Your task to perform on an android device: turn on location history Image 0: 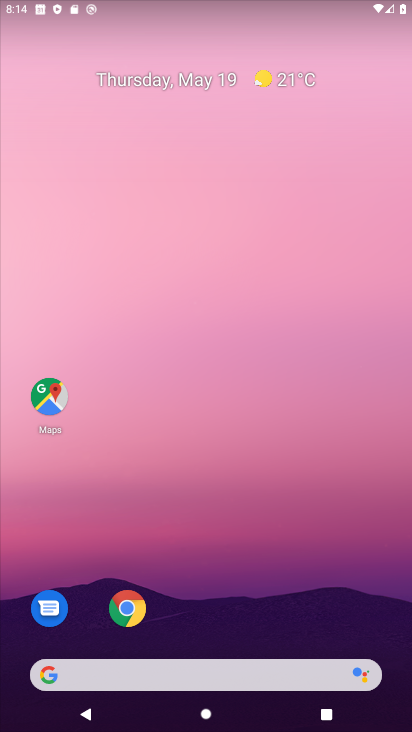
Step 0: drag from (230, 544) to (202, 123)
Your task to perform on an android device: turn on location history Image 1: 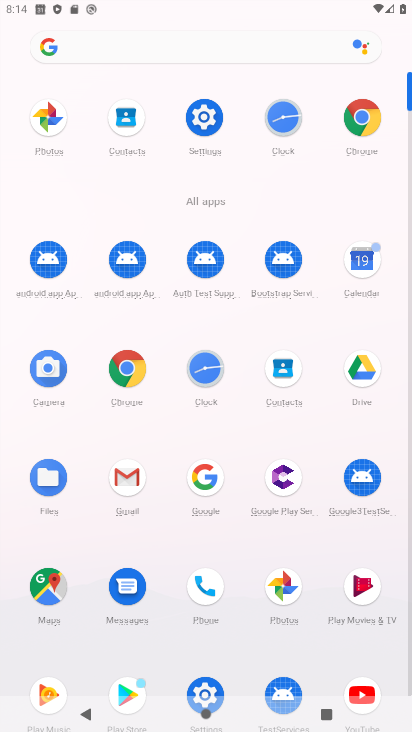
Step 1: click (40, 588)
Your task to perform on an android device: turn on location history Image 2: 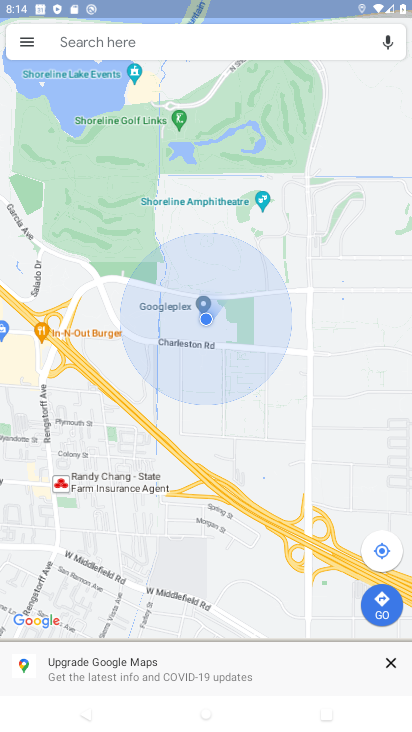
Step 2: click (25, 38)
Your task to perform on an android device: turn on location history Image 3: 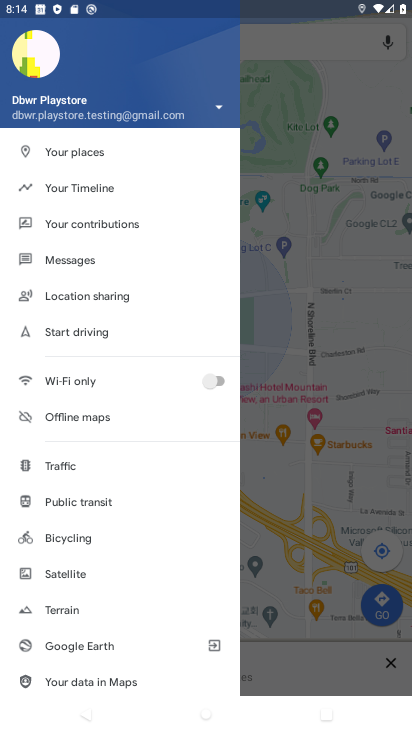
Step 3: drag from (120, 600) to (120, 337)
Your task to perform on an android device: turn on location history Image 4: 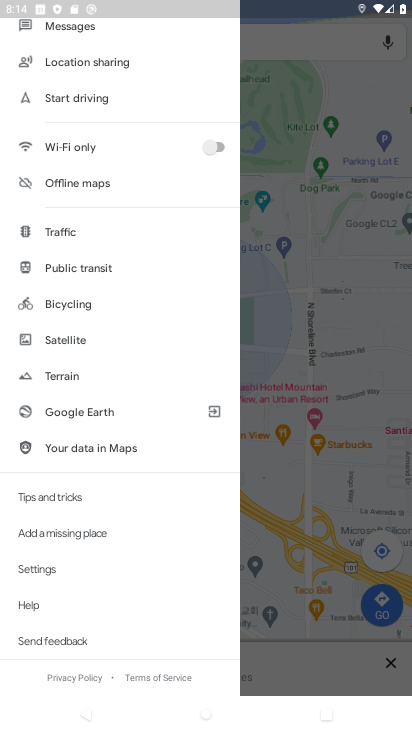
Step 4: drag from (114, 156) to (189, 493)
Your task to perform on an android device: turn on location history Image 5: 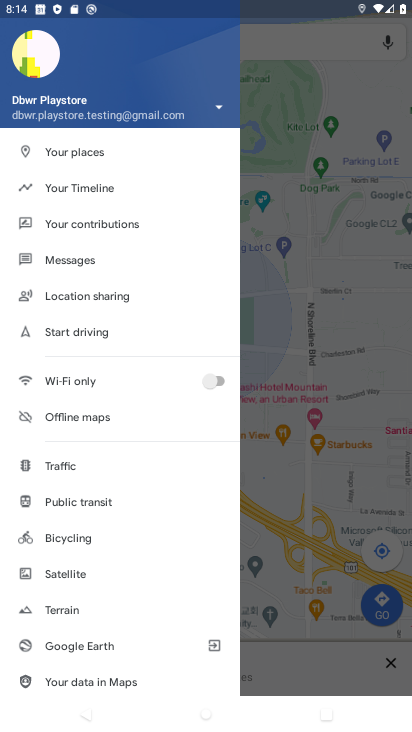
Step 5: click (93, 186)
Your task to perform on an android device: turn on location history Image 6: 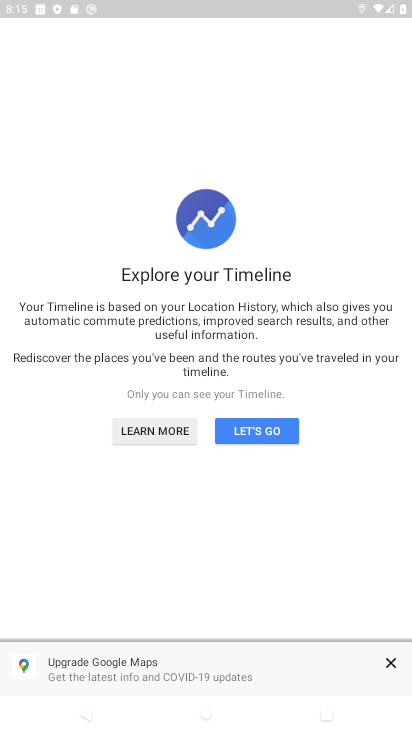
Step 6: click (242, 423)
Your task to perform on an android device: turn on location history Image 7: 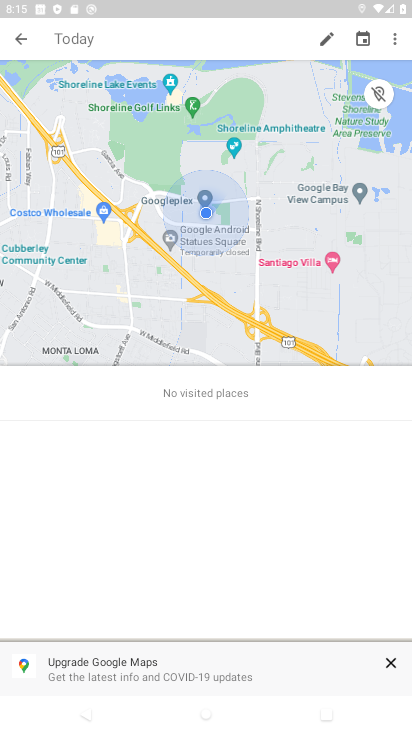
Step 7: click (397, 30)
Your task to perform on an android device: turn on location history Image 8: 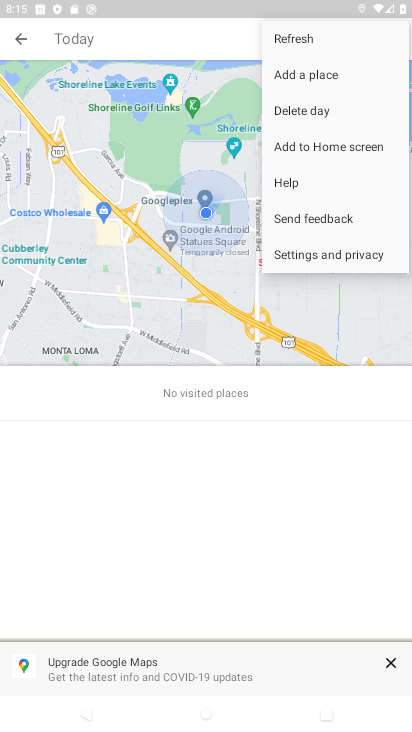
Step 8: click (332, 250)
Your task to perform on an android device: turn on location history Image 9: 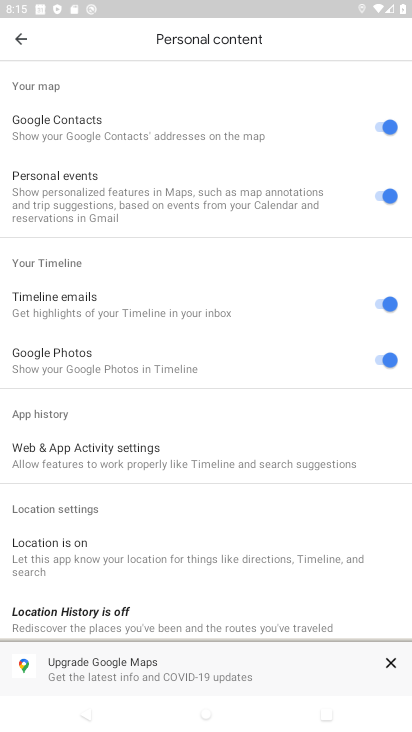
Step 9: drag from (239, 420) to (182, 159)
Your task to perform on an android device: turn on location history Image 10: 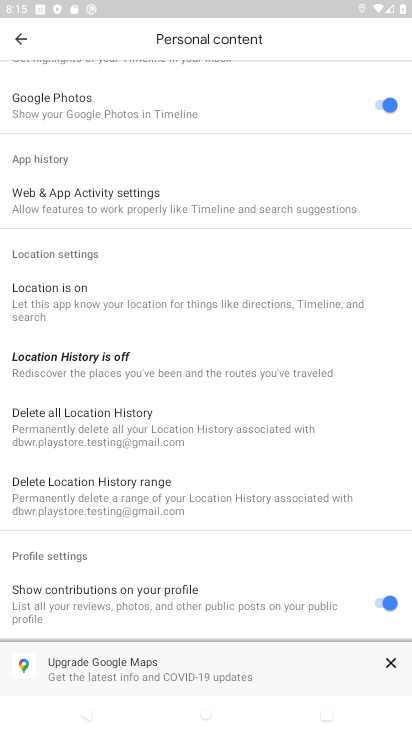
Step 10: click (81, 352)
Your task to perform on an android device: turn on location history Image 11: 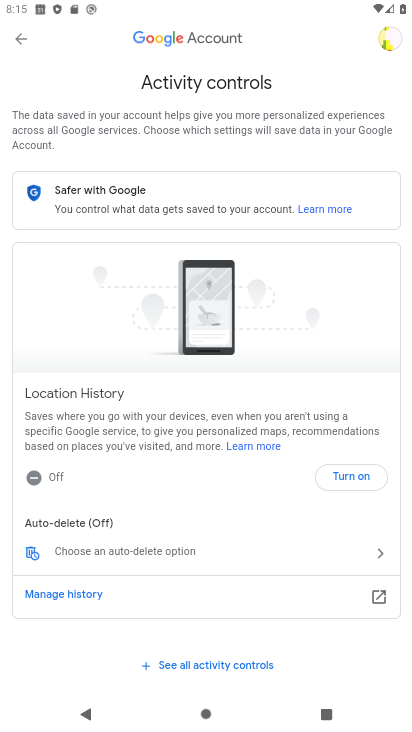
Step 11: click (360, 475)
Your task to perform on an android device: turn on location history Image 12: 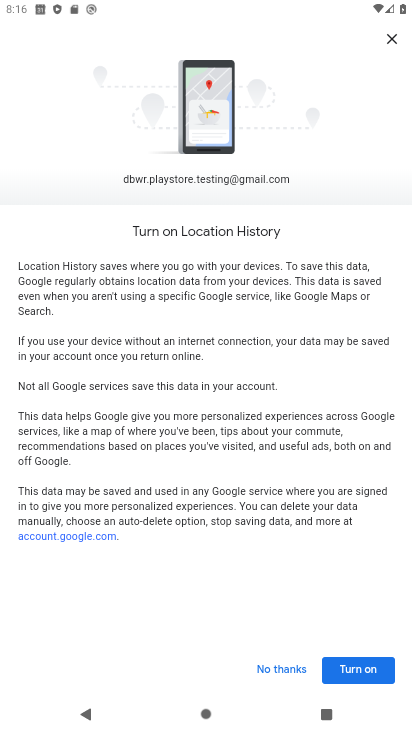
Step 12: click (357, 667)
Your task to perform on an android device: turn on location history Image 13: 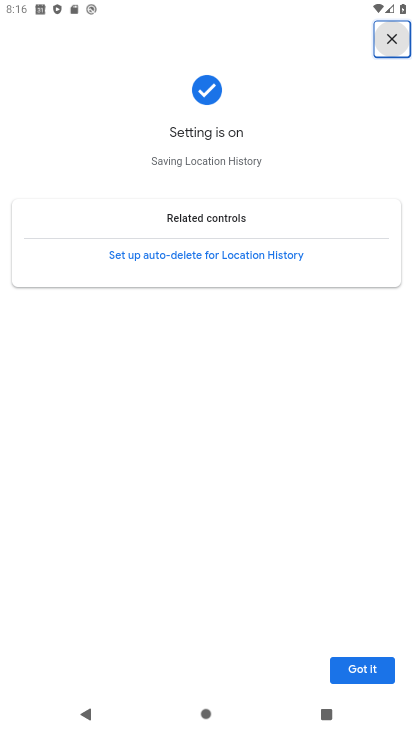
Step 13: click (357, 667)
Your task to perform on an android device: turn on location history Image 14: 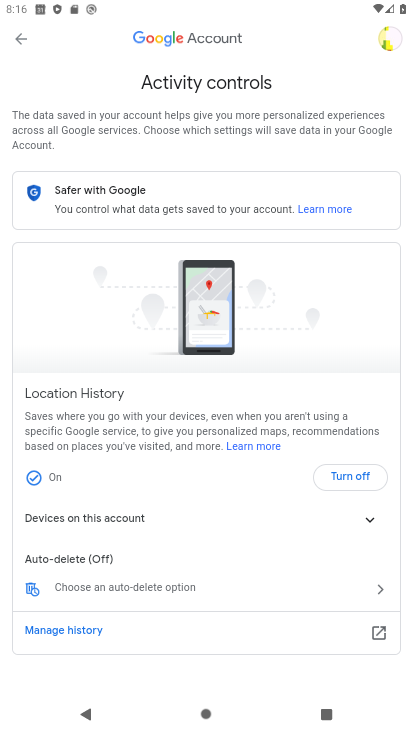
Step 14: task complete